Your task to perform on an android device: Do I have any events tomorrow? Image 0: 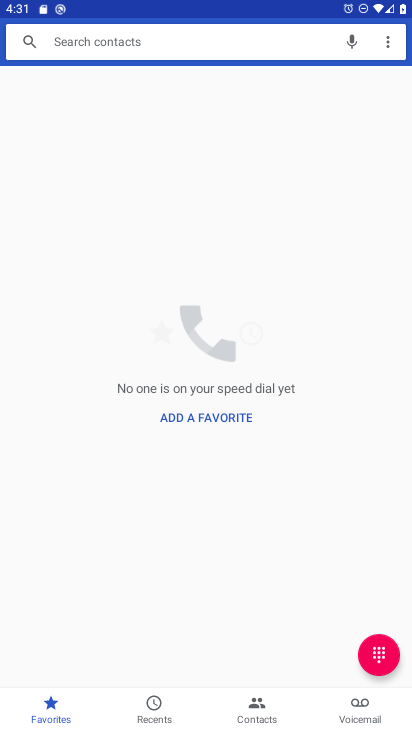
Step 0: press home button
Your task to perform on an android device: Do I have any events tomorrow? Image 1: 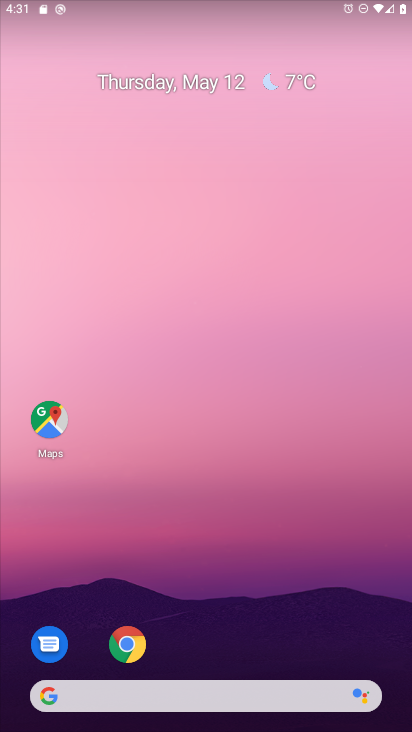
Step 1: drag from (214, 656) to (400, 49)
Your task to perform on an android device: Do I have any events tomorrow? Image 2: 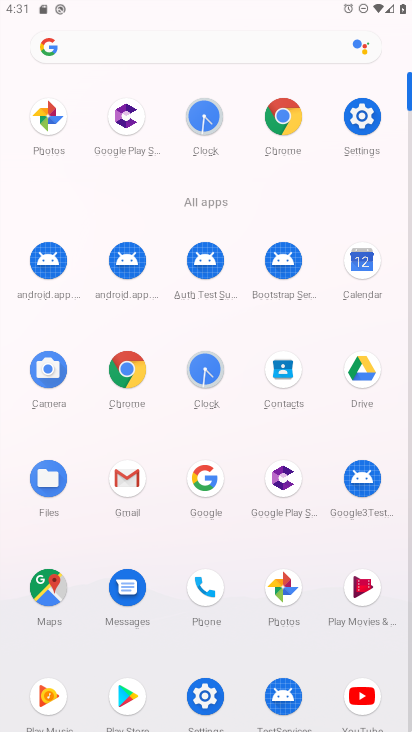
Step 2: click (369, 265)
Your task to perform on an android device: Do I have any events tomorrow? Image 3: 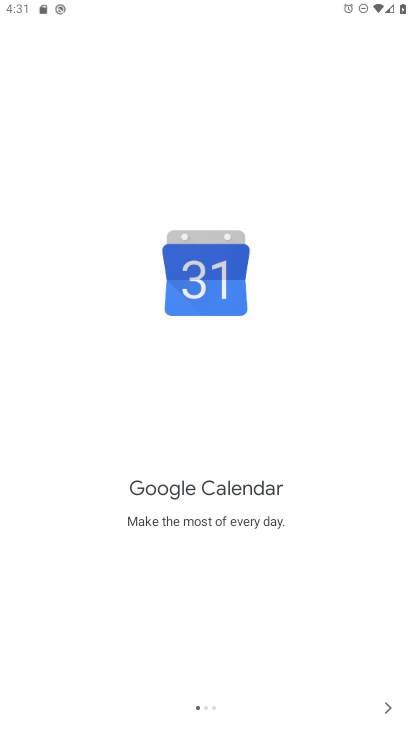
Step 3: click (383, 705)
Your task to perform on an android device: Do I have any events tomorrow? Image 4: 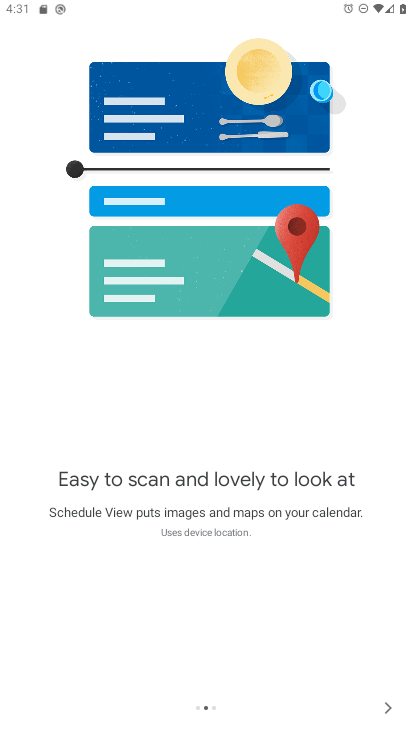
Step 4: click (383, 706)
Your task to perform on an android device: Do I have any events tomorrow? Image 5: 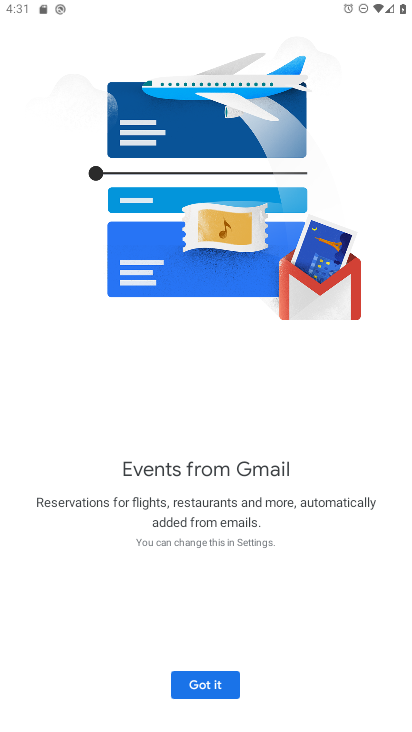
Step 5: click (383, 706)
Your task to perform on an android device: Do I have any events tomorrow? Image 6: 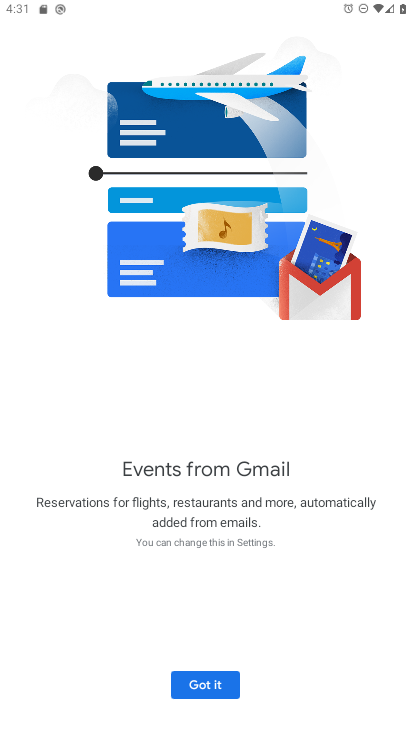
Step 6: click (215, 680)
Your task to perform on an android device: Do I have any events tomorrow? Image 7: 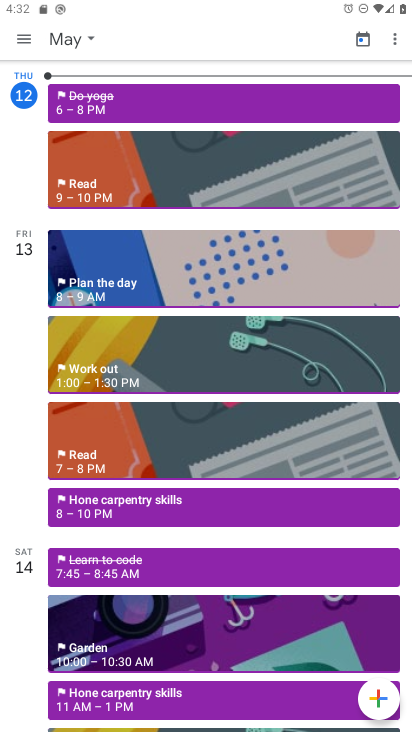
Step 7: click (37, 41)
Your task to perform on an android device: Do I have any events tomorrow? Image 8: 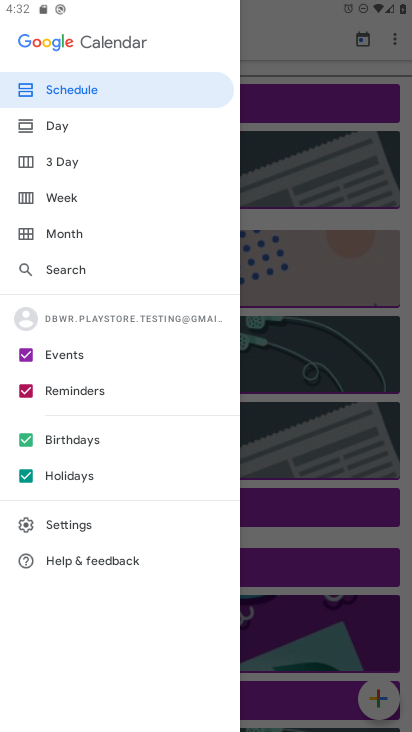
Step 8: click (63, 387)
Your task to perform on an android device: Do I have any events tomorrow? Image 9: 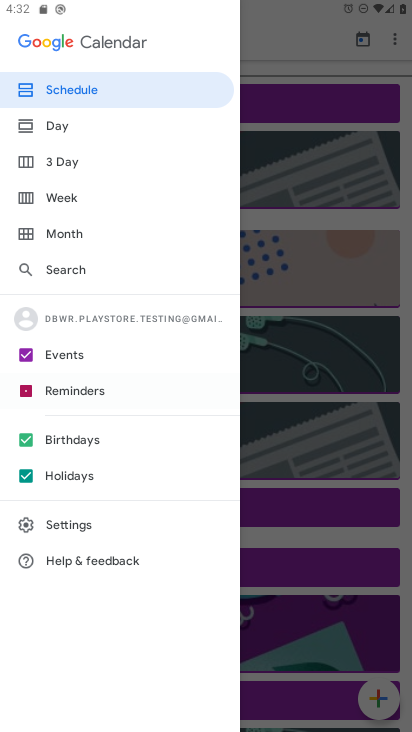
Step 9: click (61, 439)
Your task to perform on an android device: Do I have any events tomorrow? Image 10: 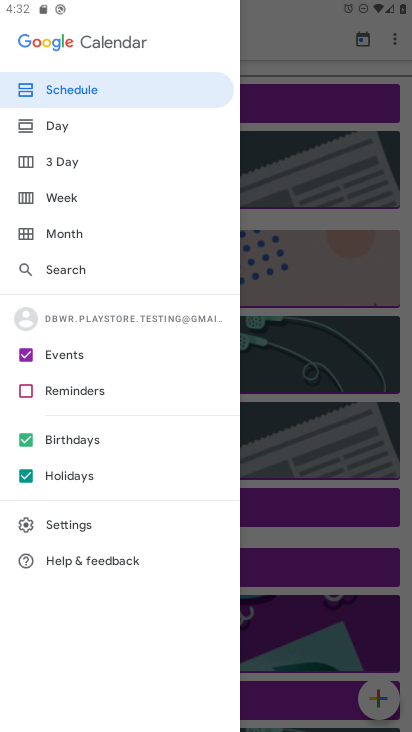
Step 10: click (61, 480)
Your task to perform on an android device: Do I have any events tomorrow? Image 11: 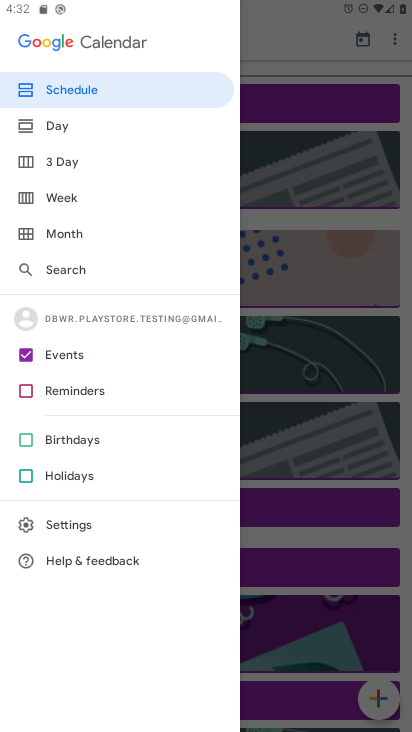
Step 11: click (76, 163)
Your task to perform on an android device: Do I have any events tomorrow? Image 12: 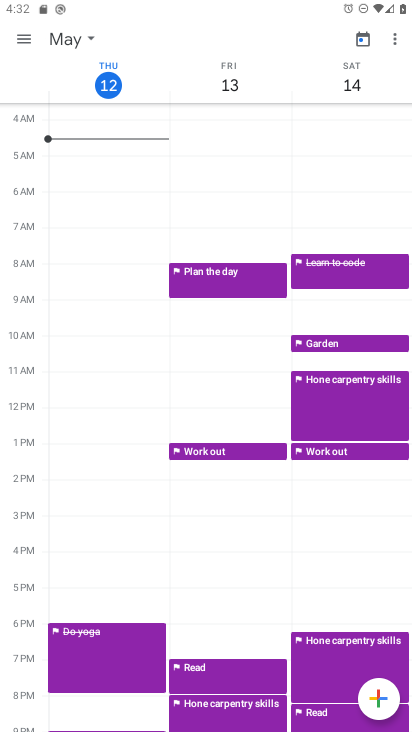
Step 12: task complete